Your task to perform on an android device: Search for vegetarian restaurants on Maps Image 0: 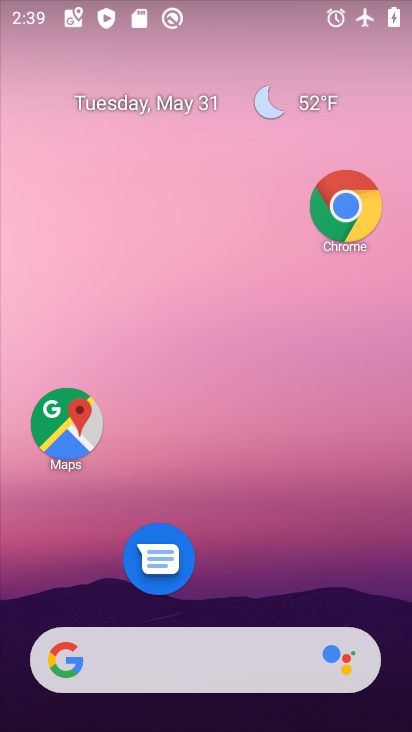
Step 0: drag from (275, 583) to (266, 186)
Your task to perform on an android device: Search for vegetarian restaurants on Maps Image 1: 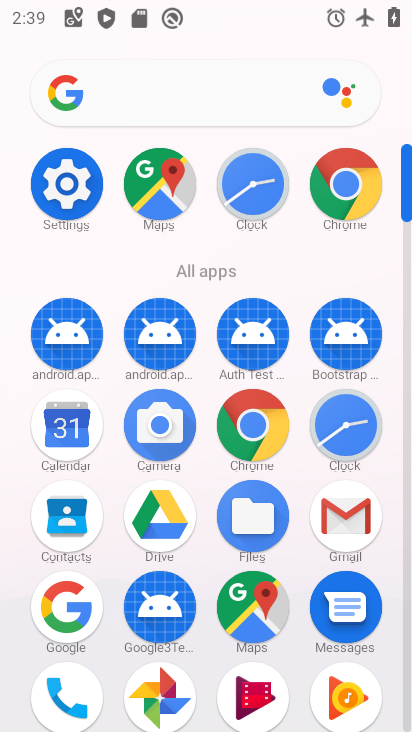
Step 1: drag from (215, 255) to (208, 59)
Your task to perform on an android device: Search for vegetarian restaurants on Maps Image 2: 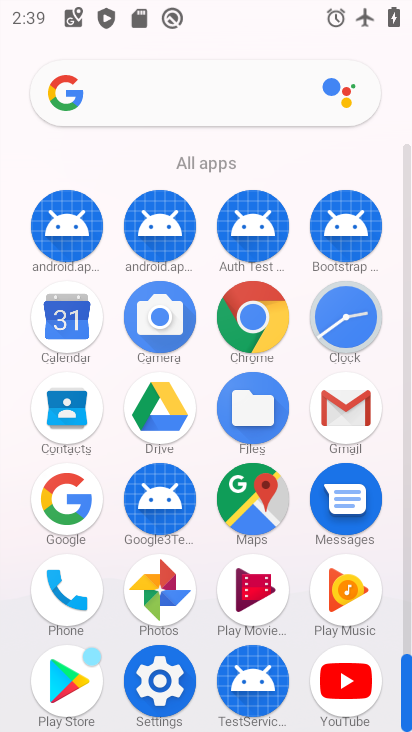
Step 2: click (251, 528)
Your task to perform on an android device: Search for vegetarian restaurants on Maps Image 3: 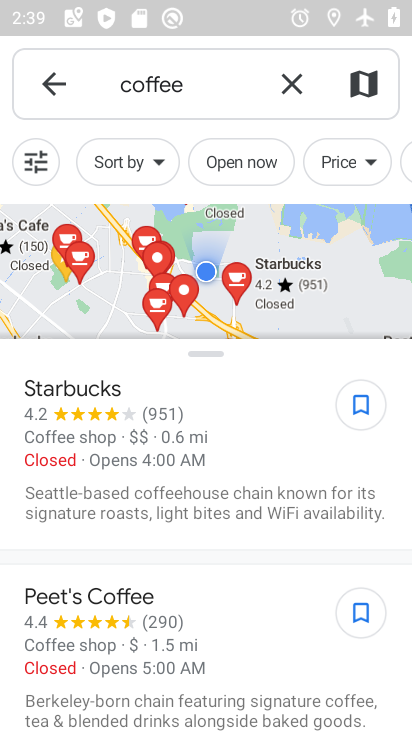
Step 3: click (296, 89)
Your task to perform on an android device: Search for vegetarian restaurants on Maps Image 4: 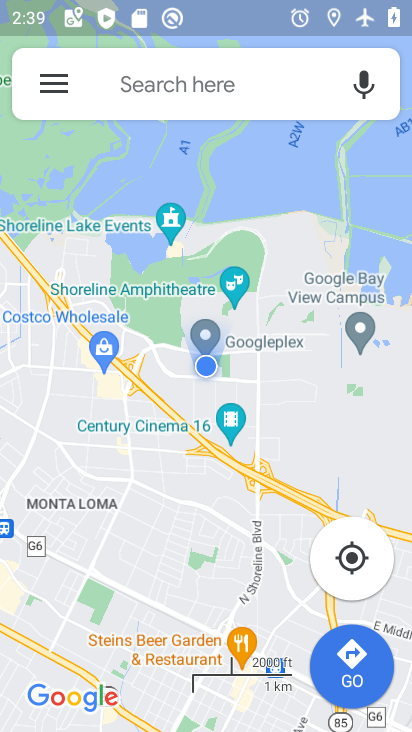
Step 4: click (235, 94)
Your task to perform on an android device: Search for vegetarian restaurants on Maps Image 5: 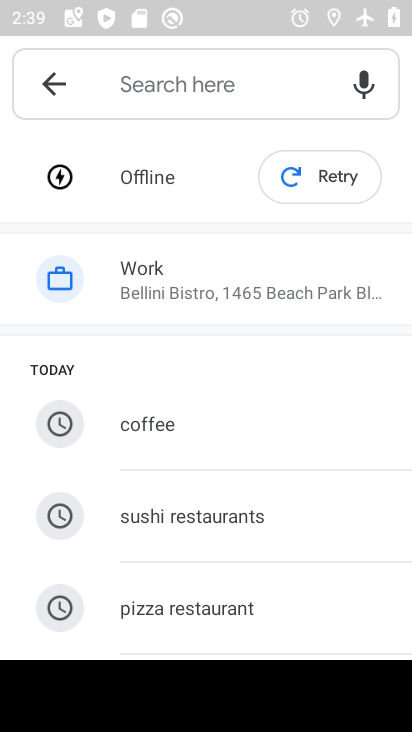
Step 5: type "vegetarian restaurants"
Your task to perform on an android device: Search for vegetarian restaurants on Maps Image 6: 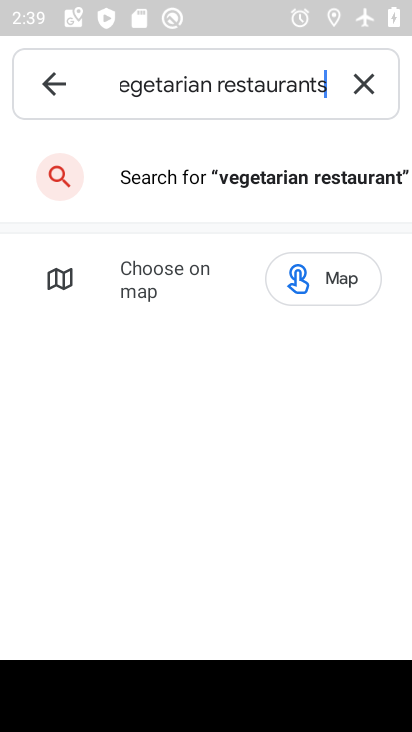
Step 6: type ""
Your task to perform on an android device: Search for vegetarian restaurants on Maps Image 7: 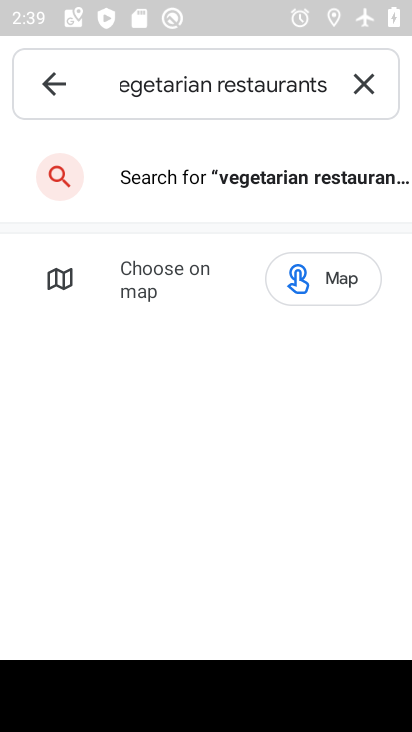
Step 7: click (295, 184)
Your task to perform on an android device: Search for vegetarian restaurants on Maps Image 8: 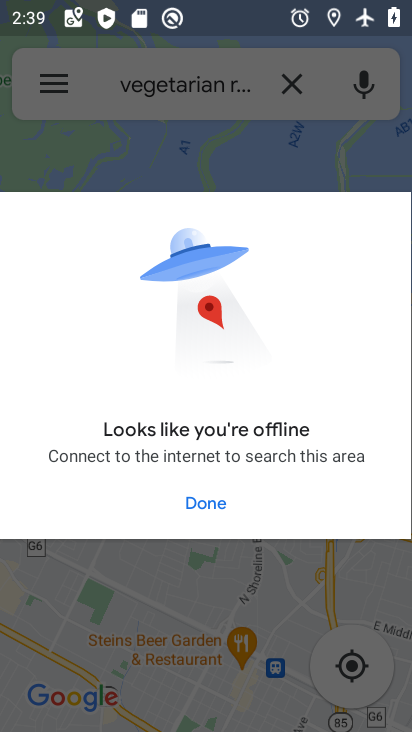
Step 8: click (212, 505)
Your task to perform on an android device: Search for vegetarian restaurants on Maps Image 9: 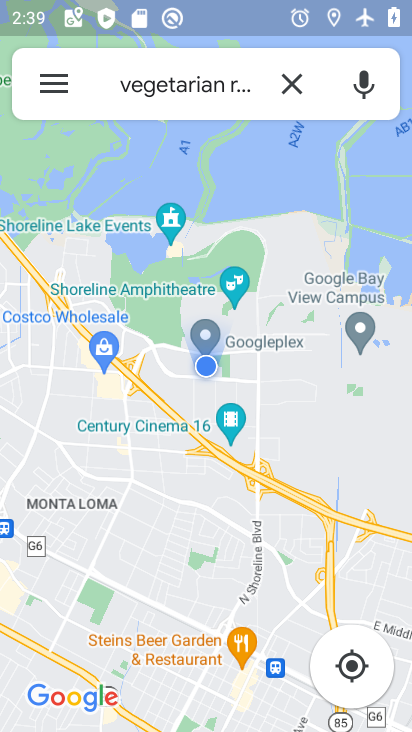
Step 9: task complete